Your task to perform on an android device: toggle show notifications on the lock screen Image 0: 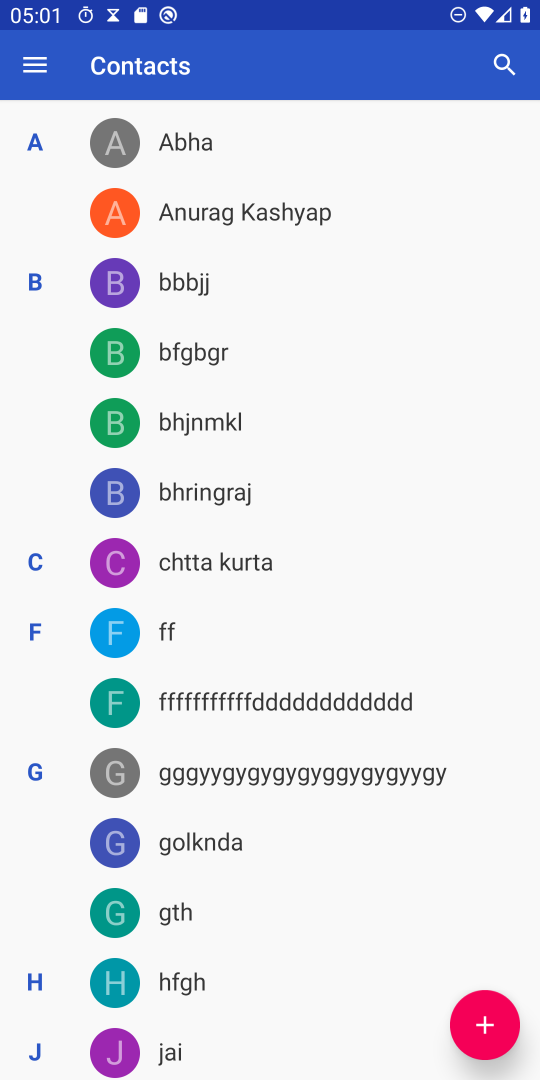
Step 0: press home button
Your task to perform on an android device: toggle show notifications on the lock screen Image 1: 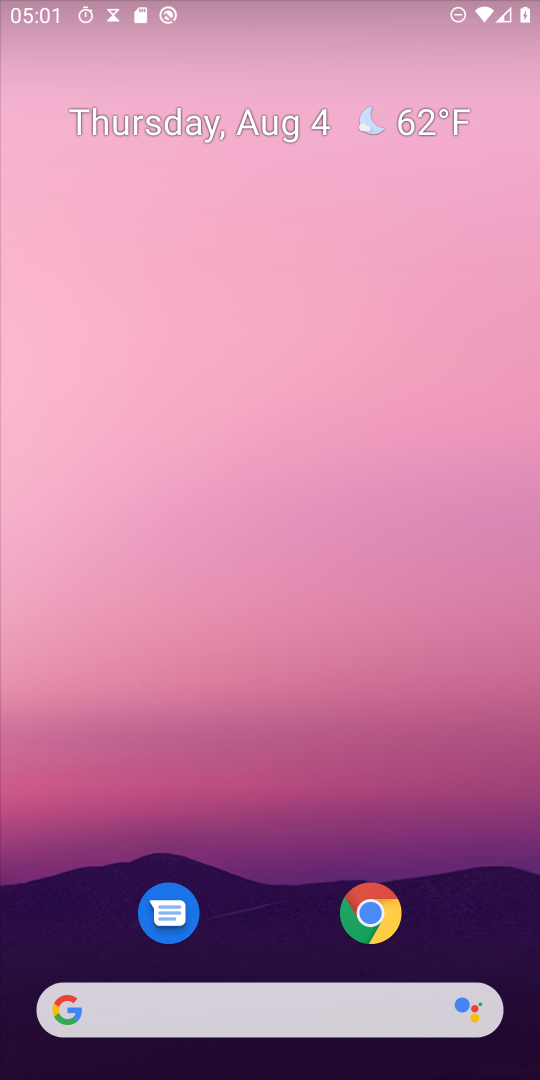
Step 1: drag from (341, 1014) to (372, 54)
Your task to perform on an android device: toggle show notifications on the lock screen Image 2: 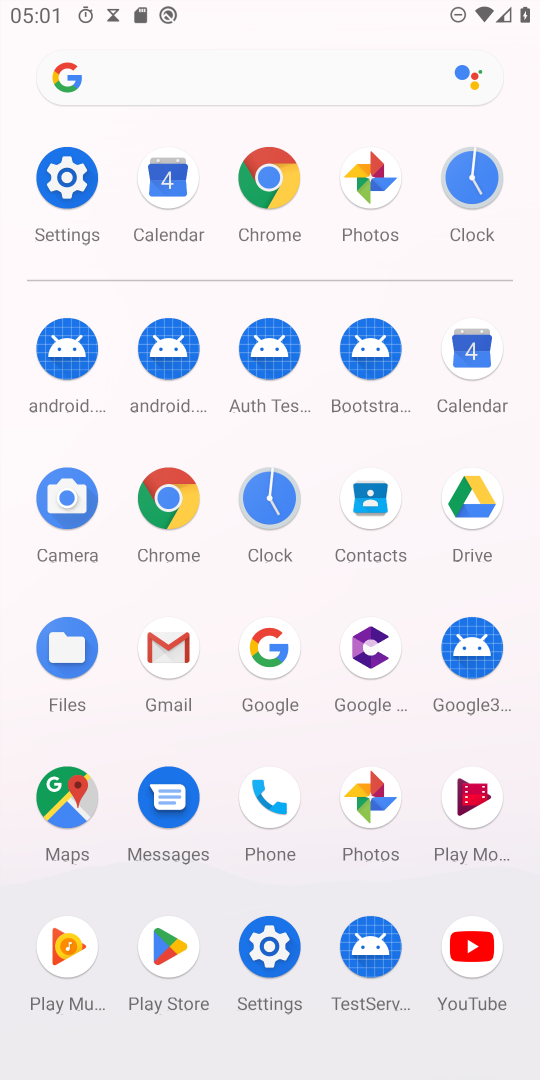
Step 2: click (64, 190)
Your task to perform on an android device: toggle show notifications on the lock screen Image 3: 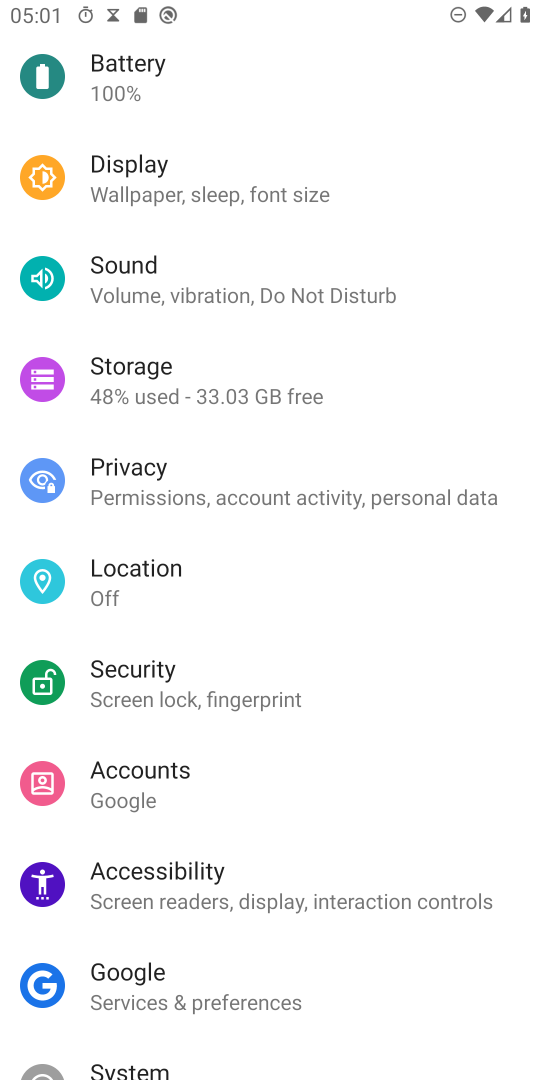
Step 3: drag from (322, 259) to (211, 891)
Your task to perform on an android device: toggle show notifications on the lock screen Image 4: 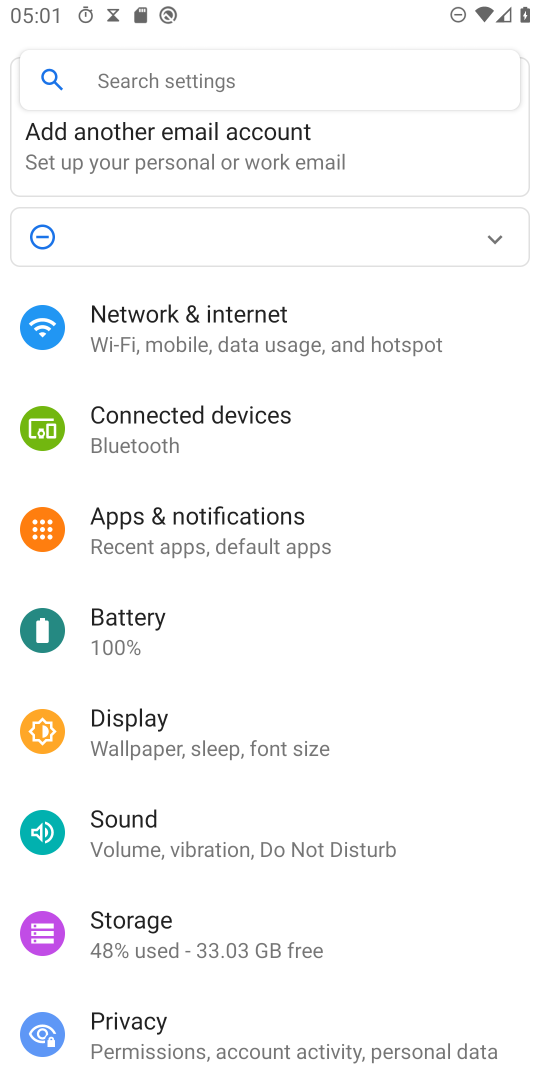
Step 4: click (217, 506)
Your task to perform on an android device: toggle show notifications on the lock screen Image 5: 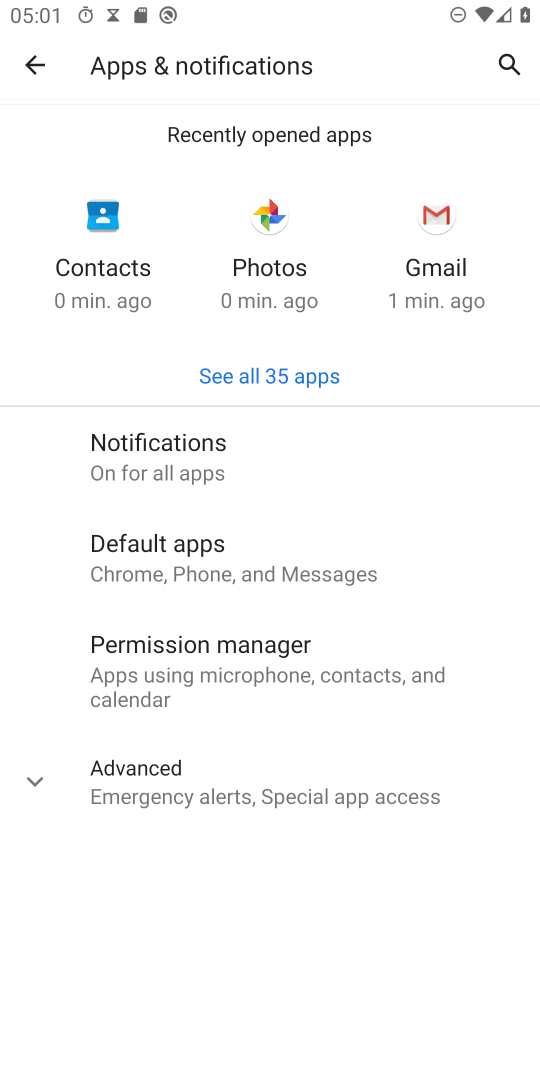
Step 5: click (197, 460)
Your task to perform on an android device: toggle show notifications on the lock screen Image 6: 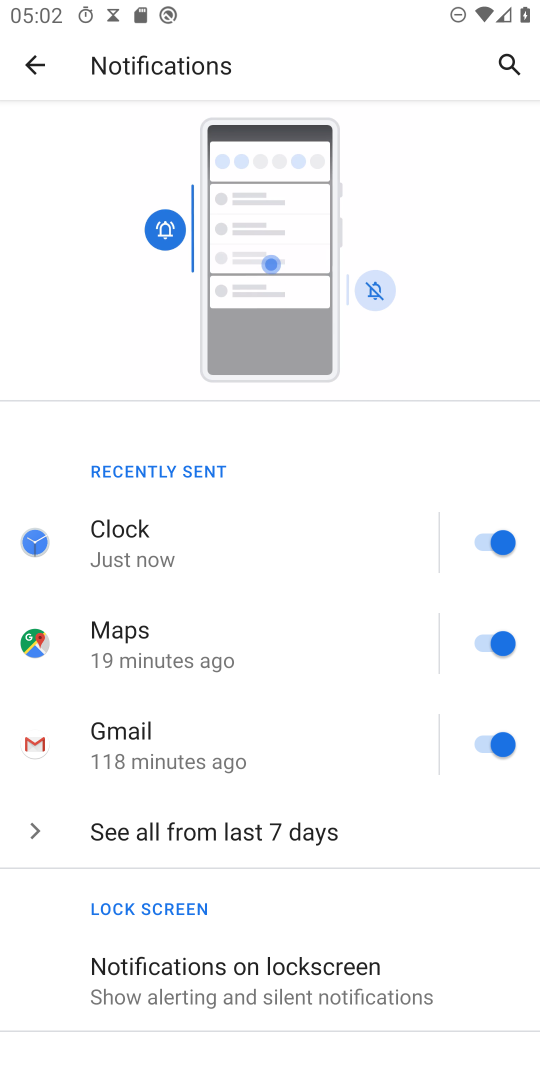
Step 6: click (370, 1010)
Your task to perform on an android device: toggle show notifications on the lock screen Image 7: 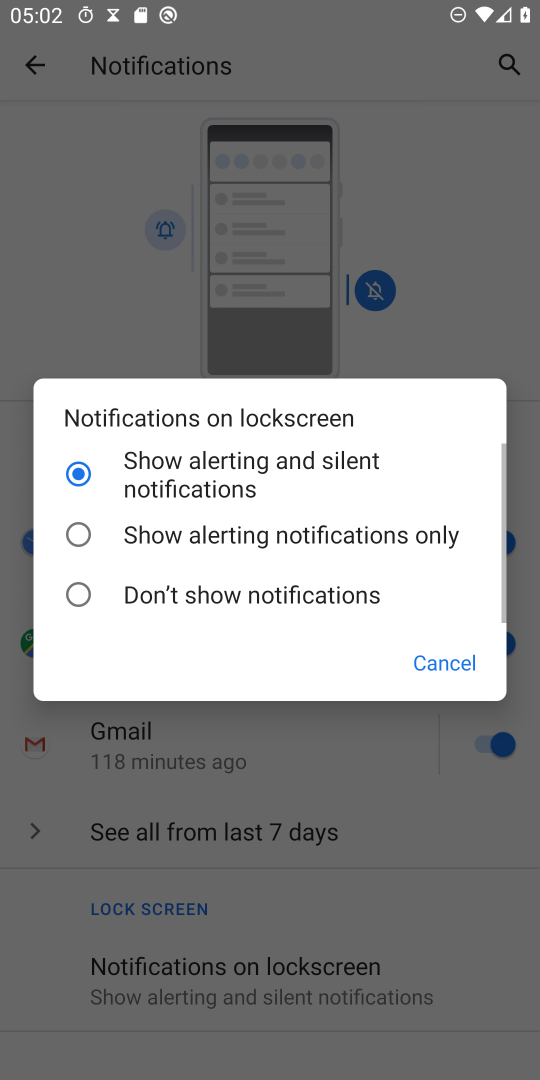
Step 7: click (87, 592)
Your task to perform on an android device: toggle show notifications on the lock screen Image 8: 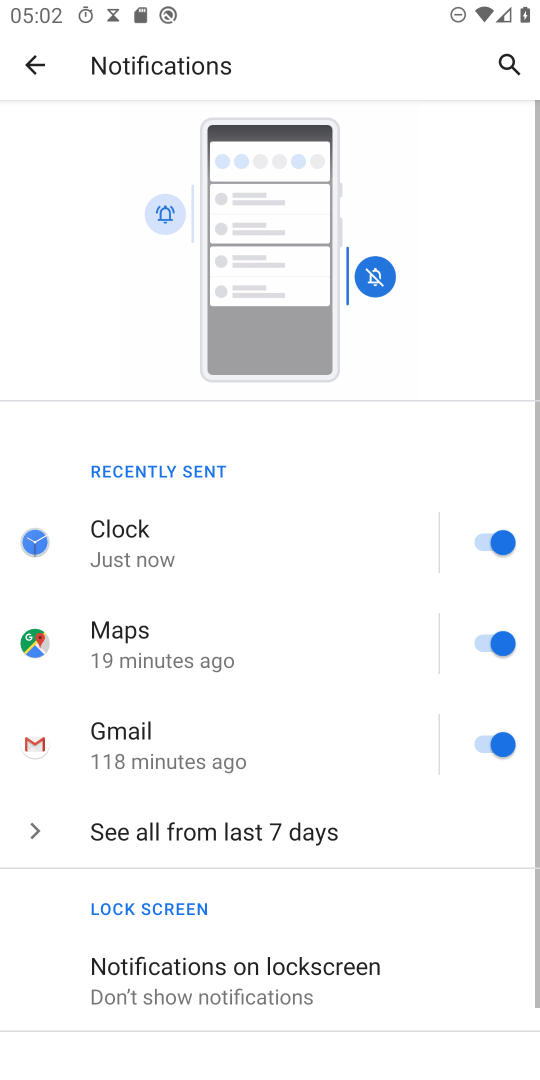
Step 8: task complete